Your task to perform on an android device: read, delete, or share a saved page in the chrome app Image 0: 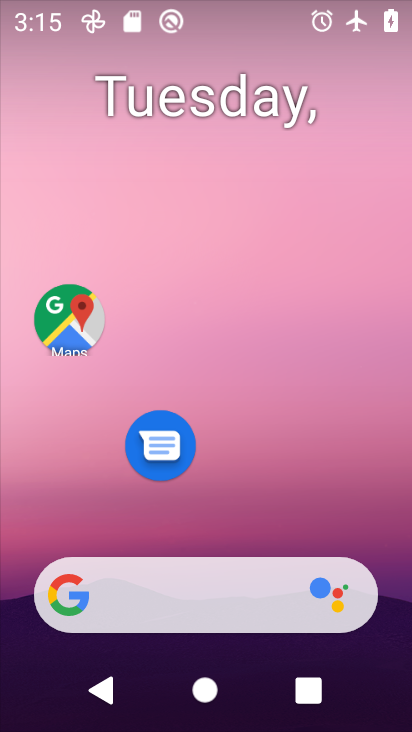
Step 0: drag from (264, 518) to (218, 9)
Your task to perform on an android device: read, delete, or share a saved page in the chrome app Image 1: 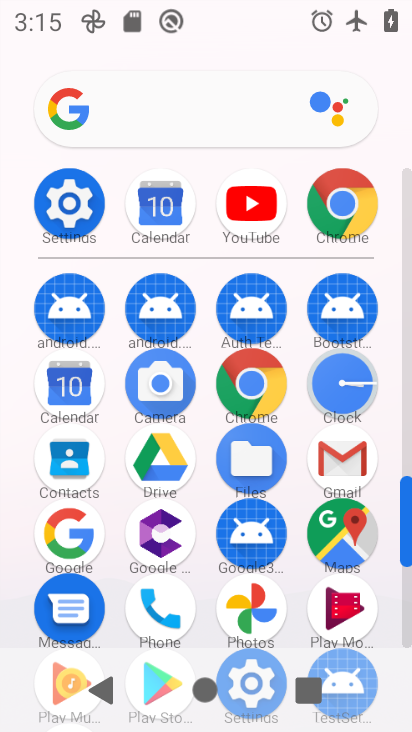
Step 1: click (350, 195)
Your task to perform on an android device: read, delete, or share a saved page in the chrome app Image 2: 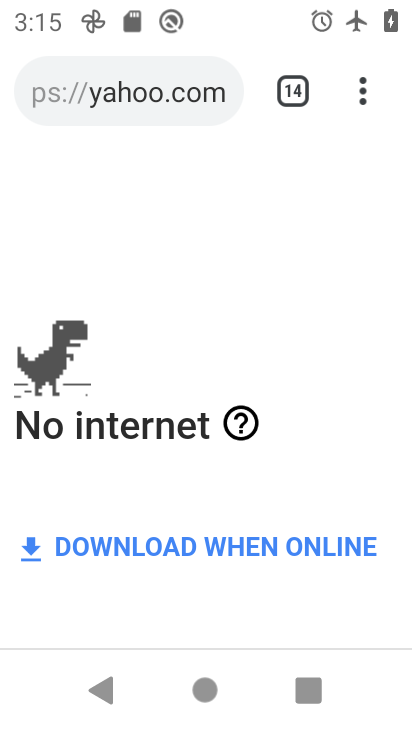
Step 2: click (361, 84)
Your task to perform on an android device: read, delete, or share a saved page in the chrome app Image 3: 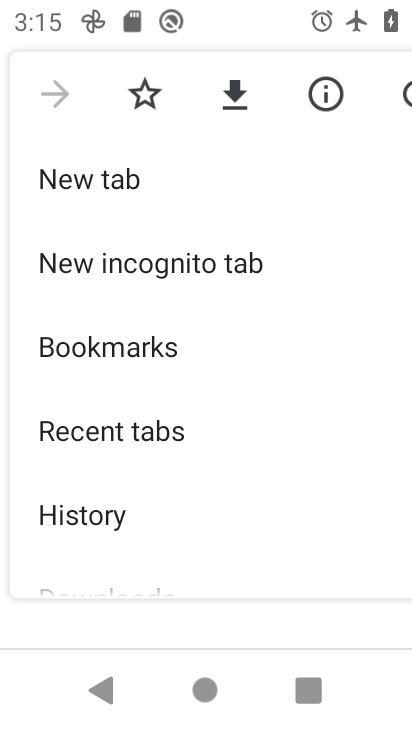
Step 3: drag from (238, 482) to (179, 158)
Your task to perform on an android device: read, delete, or share a saved page in the chrome app Image 4: 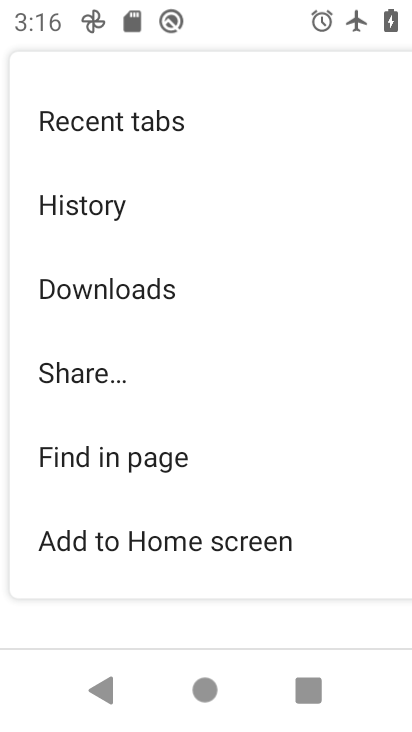
Step 4: drag from (223, 344) to (278, 710)
Your task to perform on an android device: read, delete, or share a saved page in the chrome app Image 5: 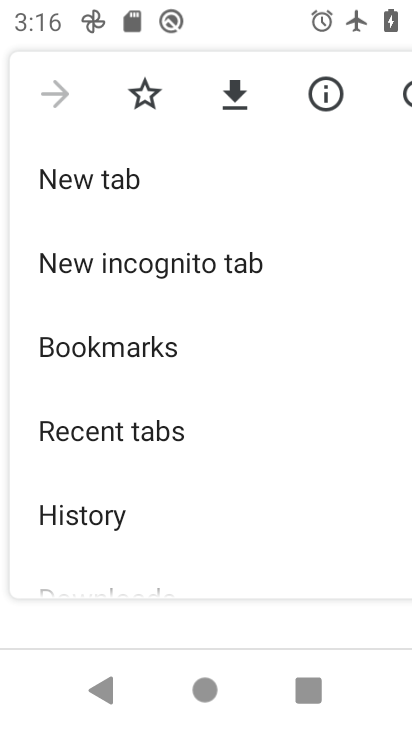
Step 5: drag from (153, 462) to (126, 197)
Your task to perform on an android device: read, delete, or share a saved page in the chrome app Image 6: 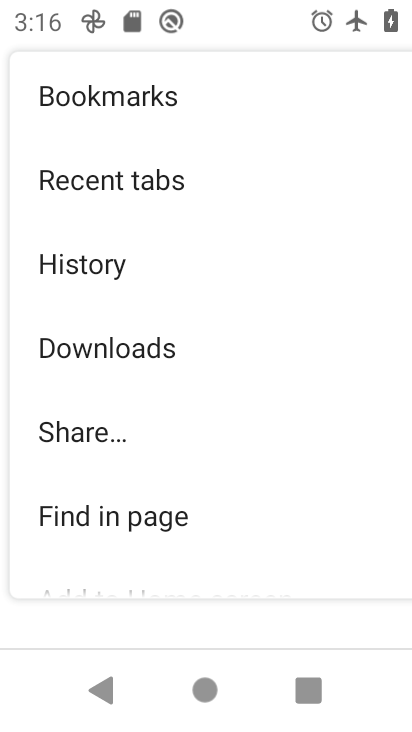
Step 6: click (100, 354)
Your task to perform on an android device: read, delete, or share a saved page in the chrome app Image 7: 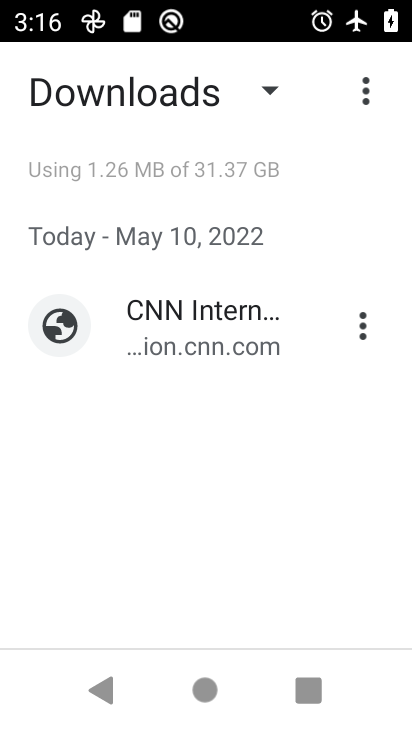
Step 7: click (361, 97)
Your task to perform on an android device: read, delete, or share a saved page in the chrome app Image 8: 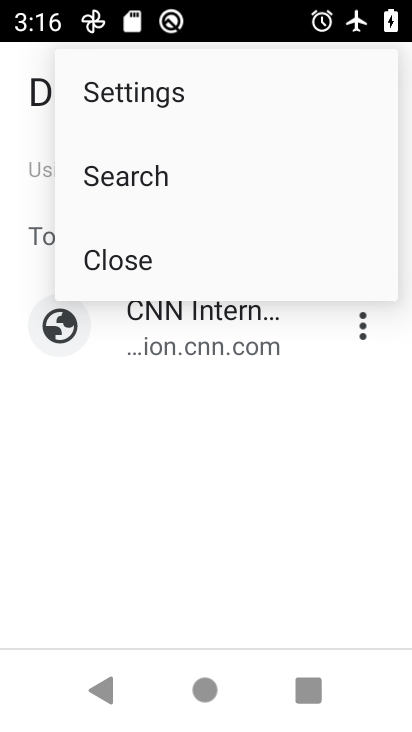
Step 8: click (297, 411)
Your task to perform on an android device: read, delete, or share a saved page in the chrome app Image 9: 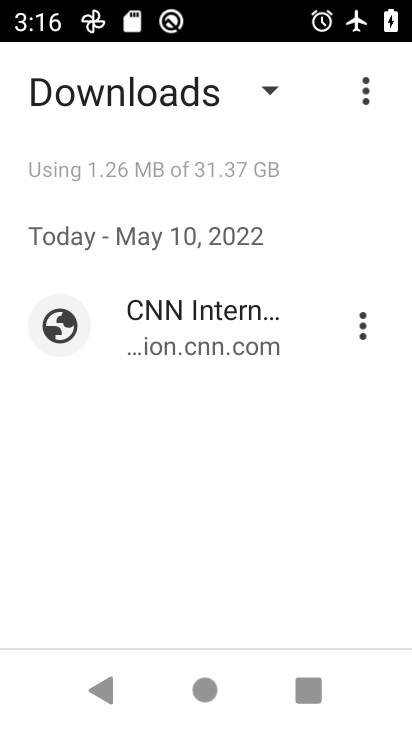
Step 9: task complete